Your task to perform on an android device: turn off priority inbox in the gmail app Image 0: 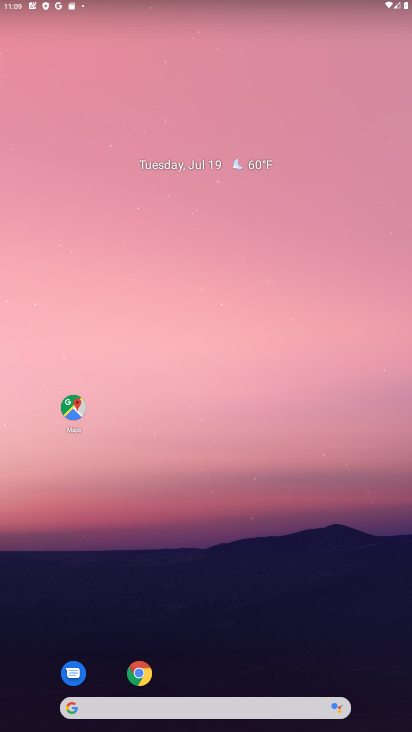
Step 0: drag from (376, 672) to (341, 204)
Your task to perform on an android device: turn off priority inbox in the gmail app Image 1: 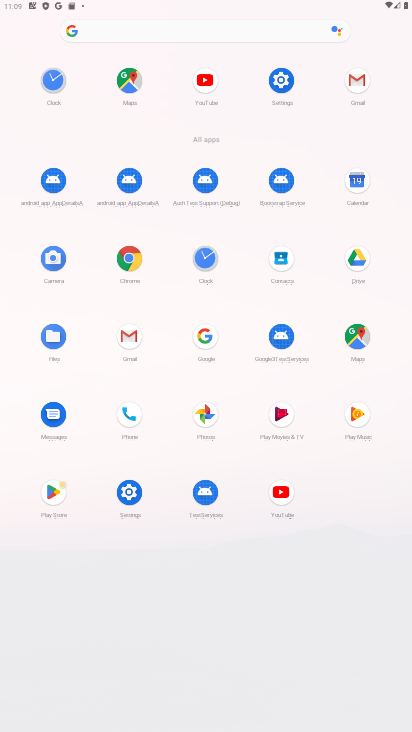
Step 1: click (127, 337)
Your task to perform on an android device: turn off priority inbox in the gmail app Image 2: 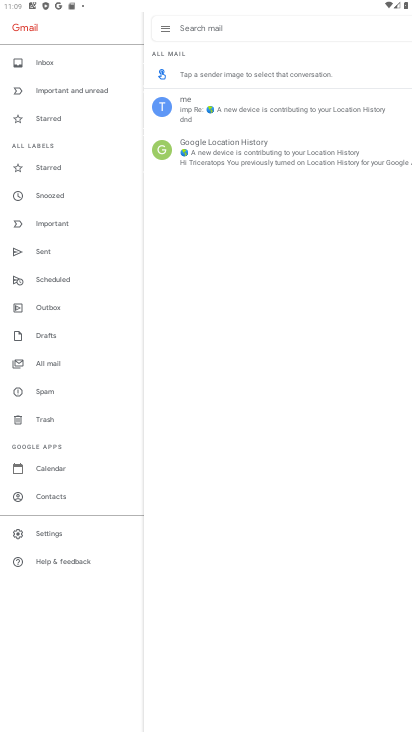
Step 2: click (46, 530)
Your task to perform on an android device: turn off priority inbox in the gmail app Image 3: 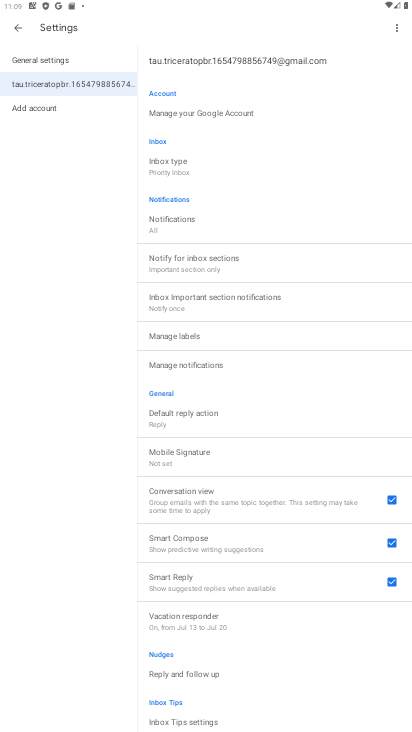
Step 3: click (160, 165)
Your task to perform on an android device: turn off priority inbox in the gmail app Image 4: 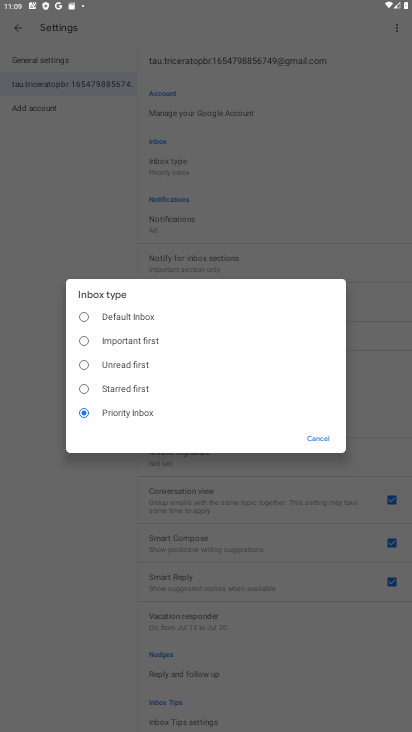
Step 4: click (88, 317)
Your task to perform on an android device: turn off priority inbox in the gmail app Image 5: 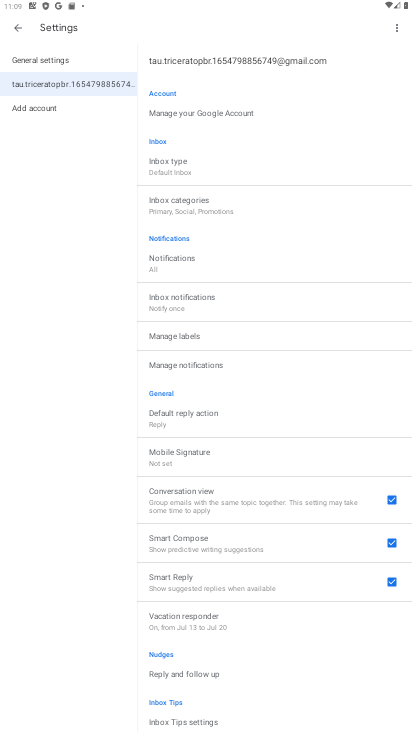
Step 5: task complete